Your task to perform on an android device: delete location history Image 0: 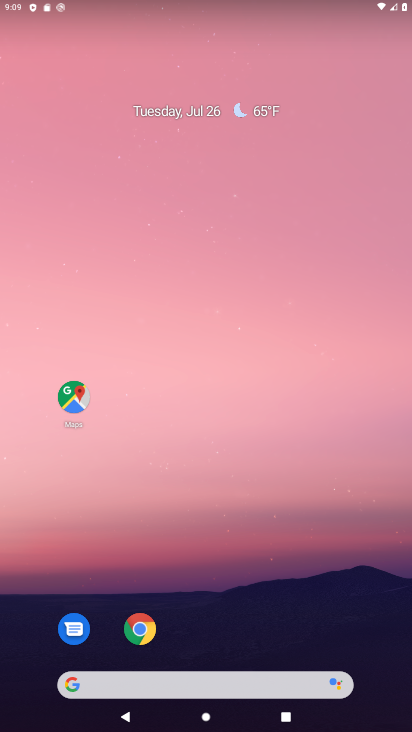
Step 0: drag from (286, 590) to (236, 88)
Your task to perform on an android device: delete location history Image 1: 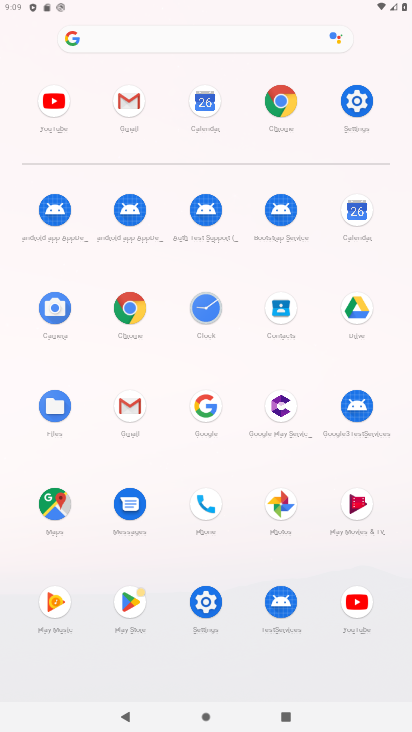
Step 1: click (353, 102)
Your task to perform on an android device: delete location history Image 2: 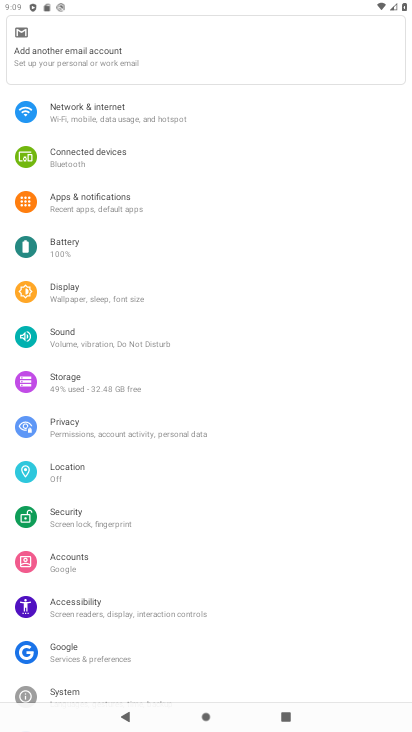
Step 2: press home button
Your task to perform on an android device: delete location history Image 3: 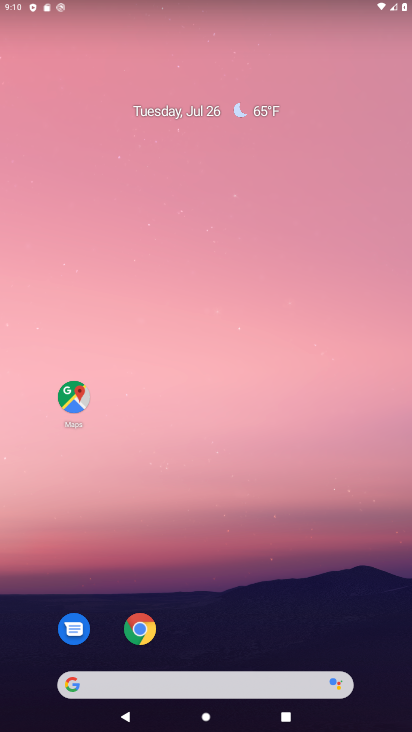
Step 3: drag from (331, 614) to (365, 74)
Your task to perform on an android device: delete location history Image 4: 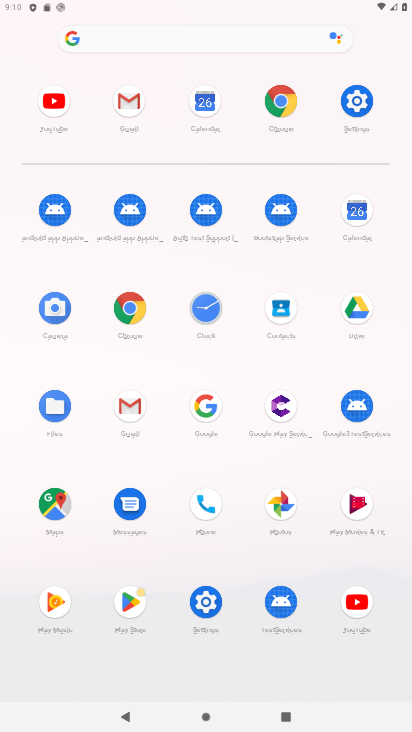
Step 4: click (59, 511)
Your task to perform on an android device: delete location history Image 5: 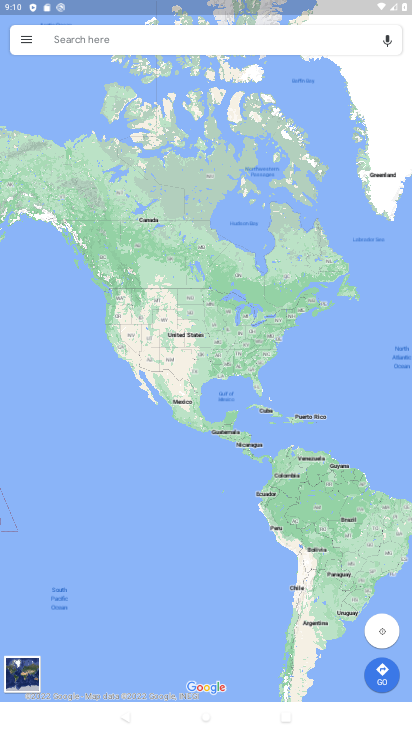
Step 5: click (29, 39)
Your task to perform on an android device: delete location history Image 6: 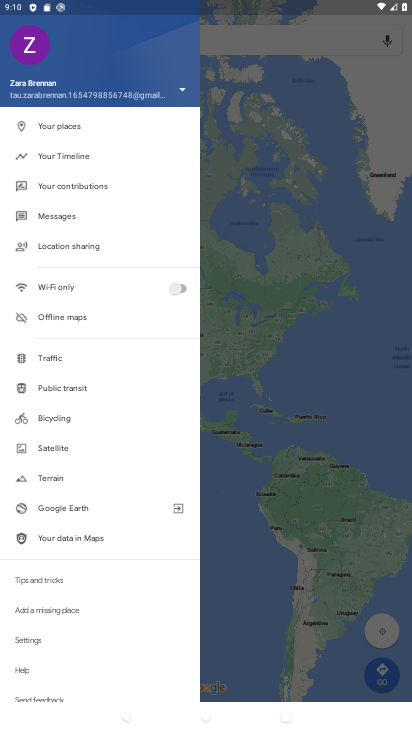
Step 6: click (45, 639)
Your task to perform on an android device: delete location history Image 7: 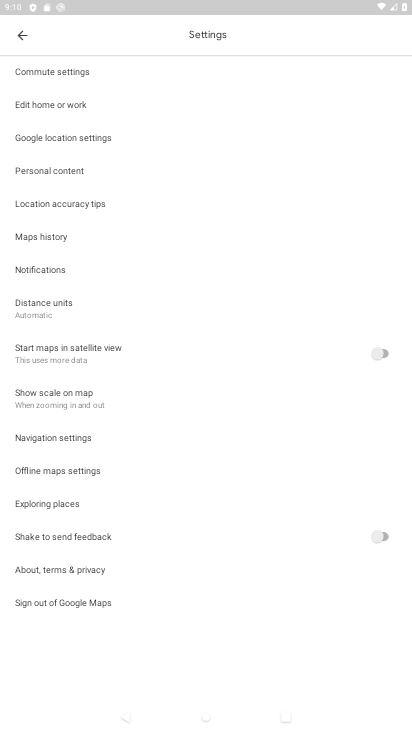
Step 7: click (58, 240)
Your task to perform on an android device: delete location history Image 8: 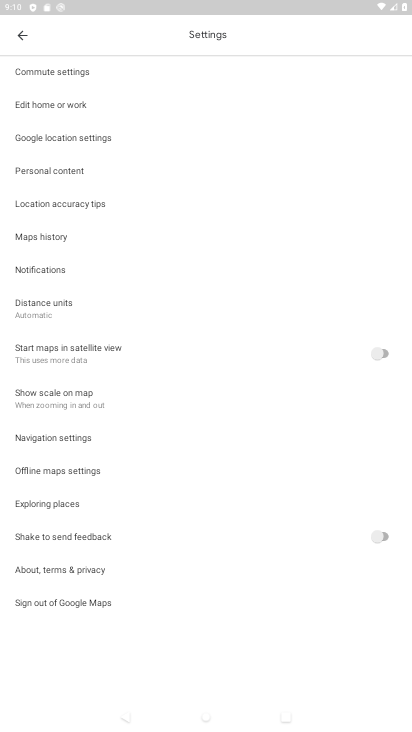
Step 8: click (59, 238)
Your task to perform on an android device: delete location history Image 9: 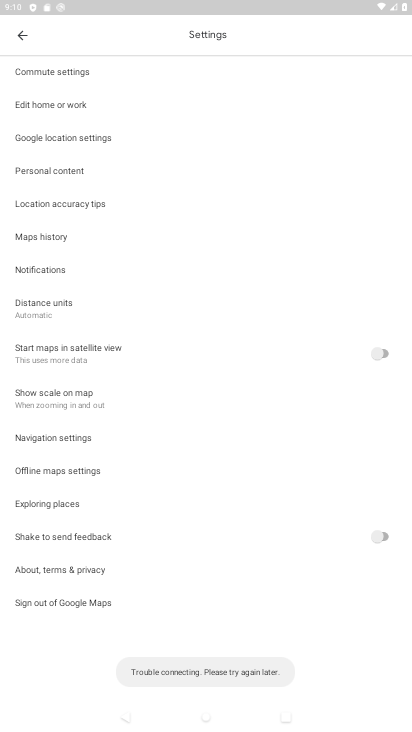
Step 9: task complete